Your task to perform on an android device: Go to Yahoo.com Image 0: 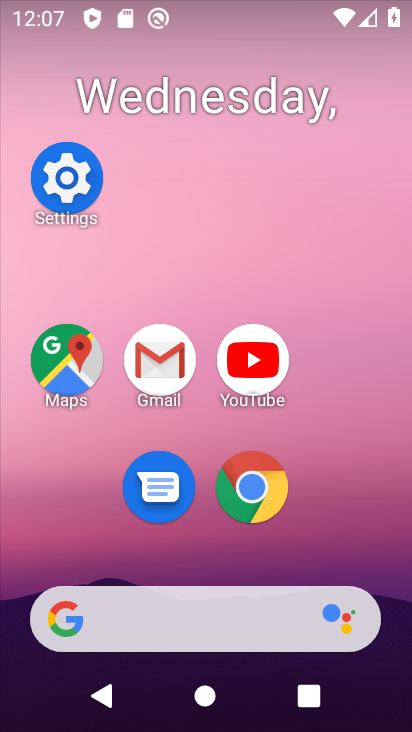
Step 0: click (274, 485)
Your task to perform on an android device: Go to Yahoo.com Image 1: 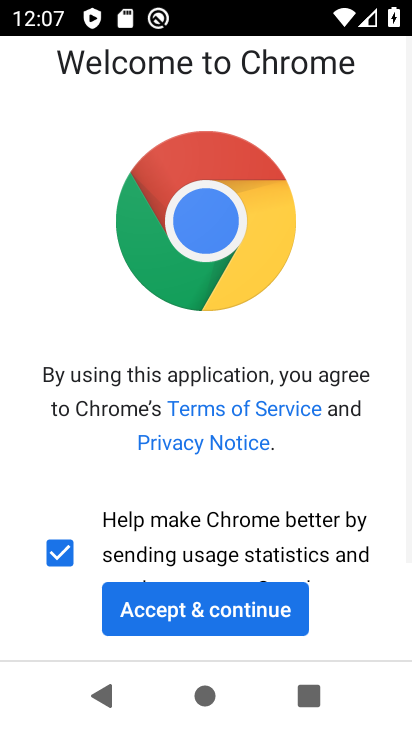
Step 1: click (230, 604)
Your task to perform on an android device: Go to Yahoo.com Image 2: 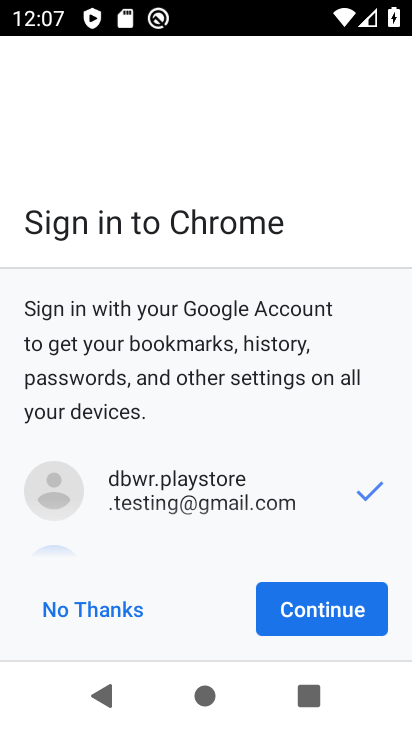
Step 2: click (354, 630)
Your task to perform on an android device: Go to Yahoo.com Image 3: 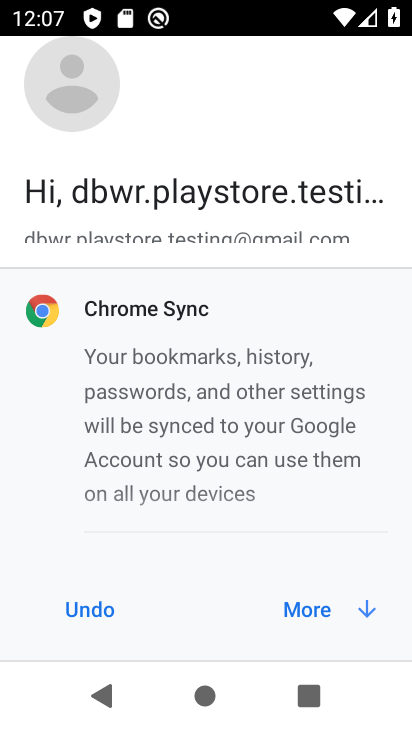
Step 3: click (341, 627)
Your task to perform on an android device: Go to Yahoo.com Image 4: 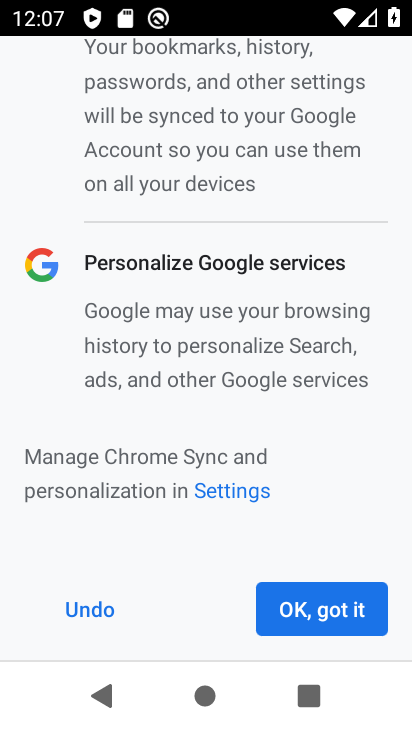
Step 4: click (341, 626)
Your task to perform on an android device: Go to Yahoo.com Image 5: 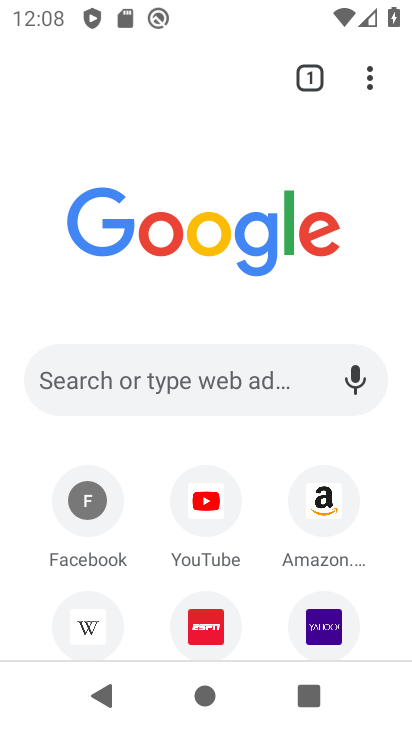
Step 5: click (309, 628)
Your task to perform on an android device: Go to Yahoo.com Image 6: 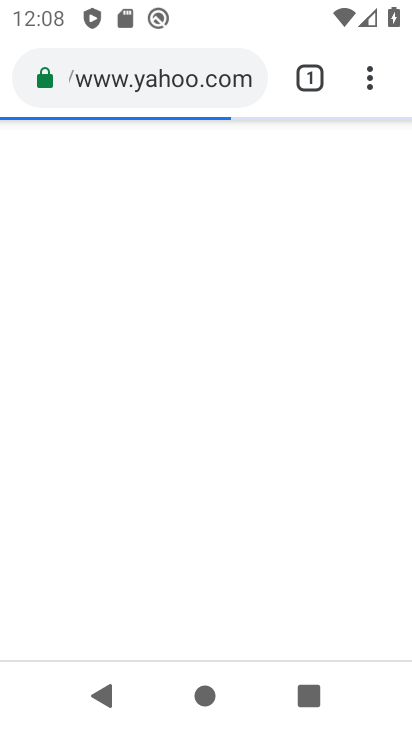
Step 6: task complete